Your task to perform on an android device: turn smart compose on in the gmail app Image 0: 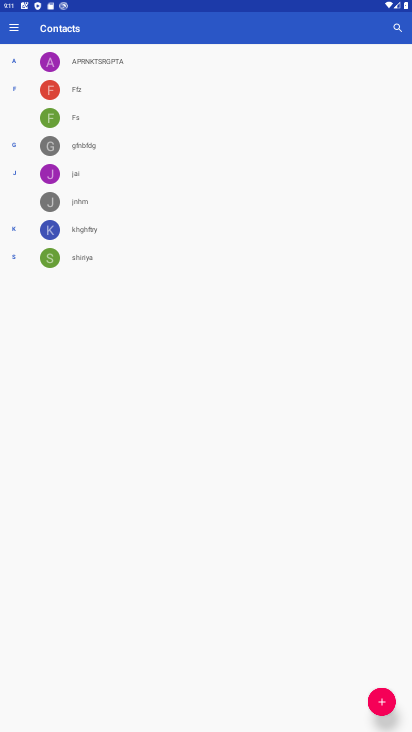
Step 0: press home button
Your task to perform on an android device: turn smart compose on in the gmail app Image 1: 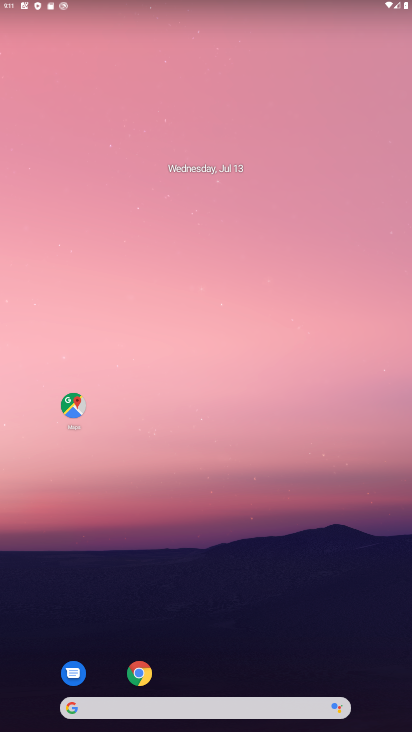
Step 1: drag from (211, 673) to (242, 188)
Your task to perform on an android device: turn smart compose on in the gmail app Image 2: 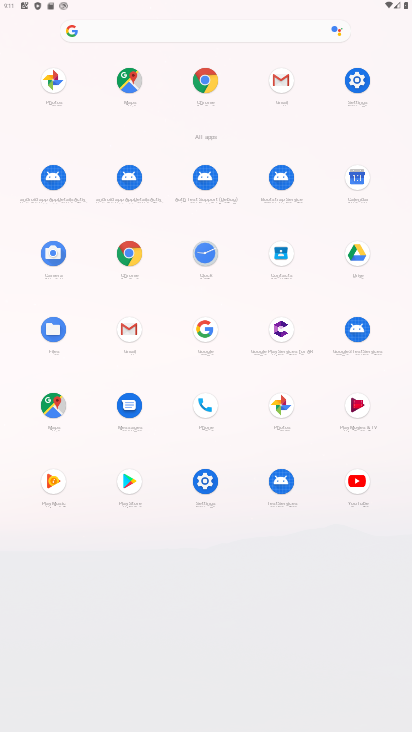
Step 2: click (283, 91)
Your task to perform on an android device: turn smart compose on in the gmail app Image 3: 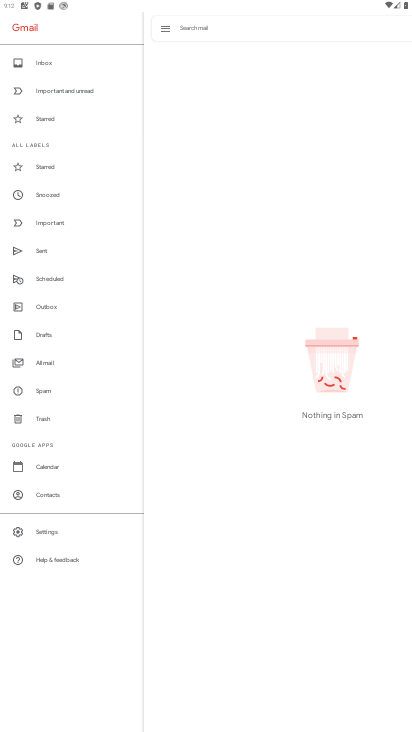
Step 3: click (68, 528)
Your task to perform on an android device: turn smart compose on in the gmail app Image 4: 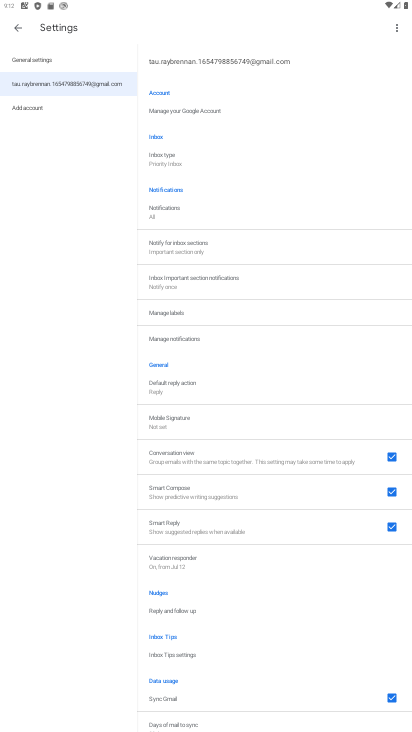
Step 4: task complete